Your task to perform on an android device: Search for razer blackwidow on target.com, select the first entry, and add it to the cart. Image 0: 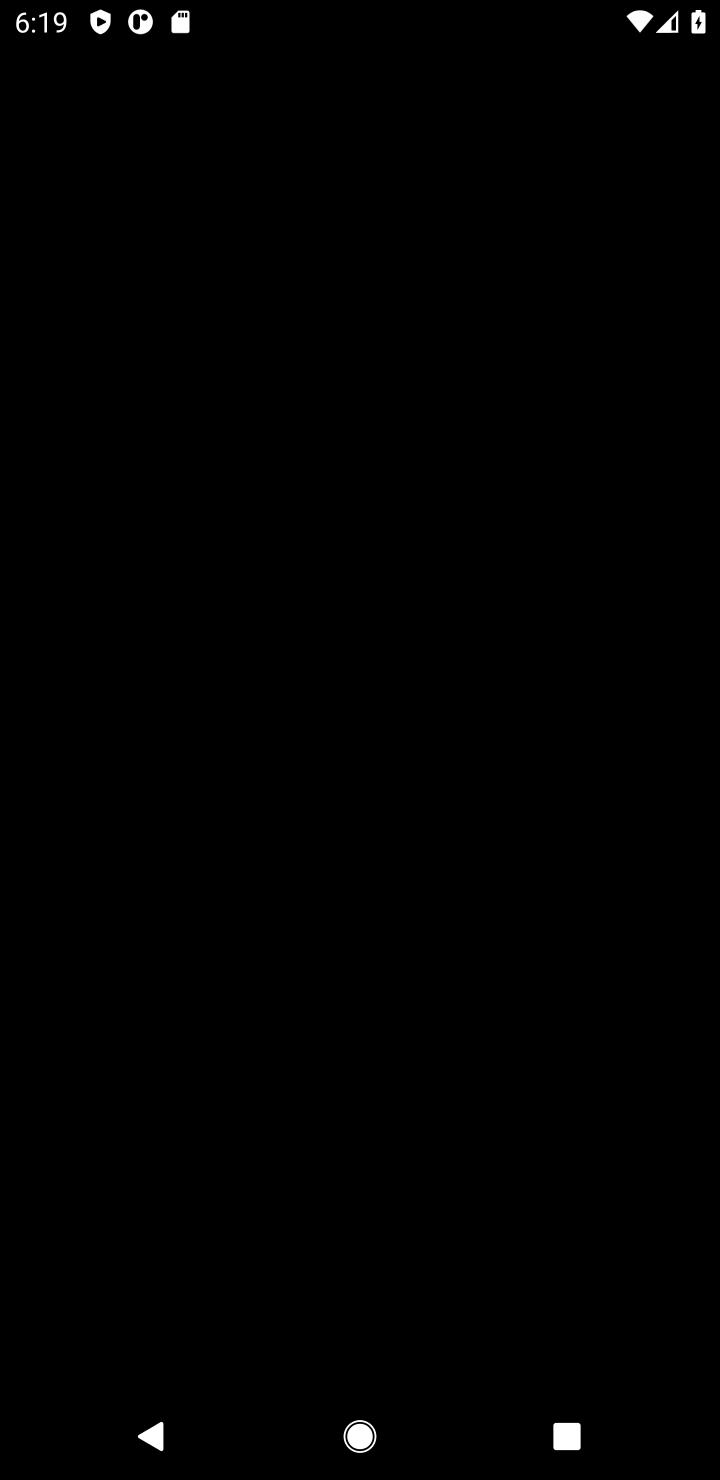
Step 0: press home button
Your task to perform on an android device: Search for razer blackwidow on target.com, select the first entry, and add it to the cart. Image 1: 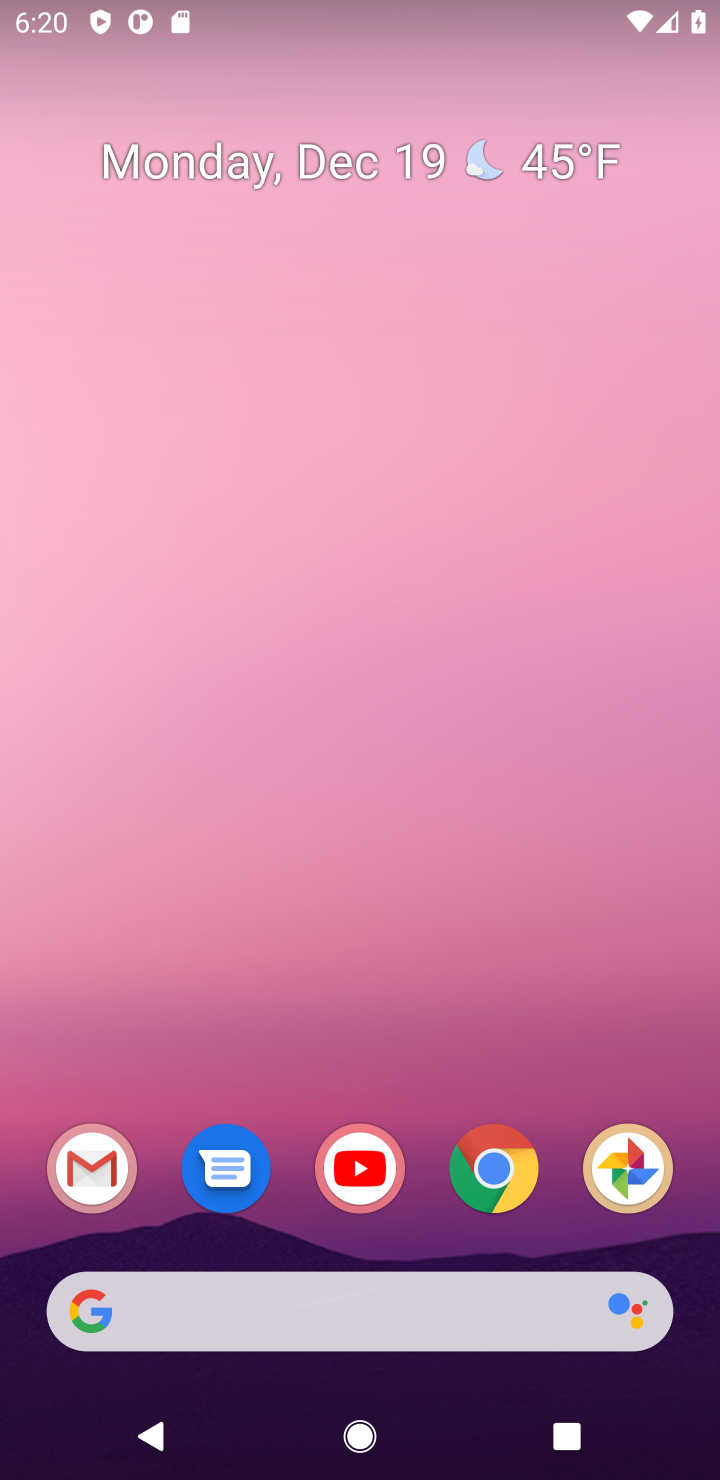
Step 1: click (494, 1180)
Your task to perform on an android device: Search for razer blackwidow on target.com, select the first entry, and add it to the cart. Image 2: 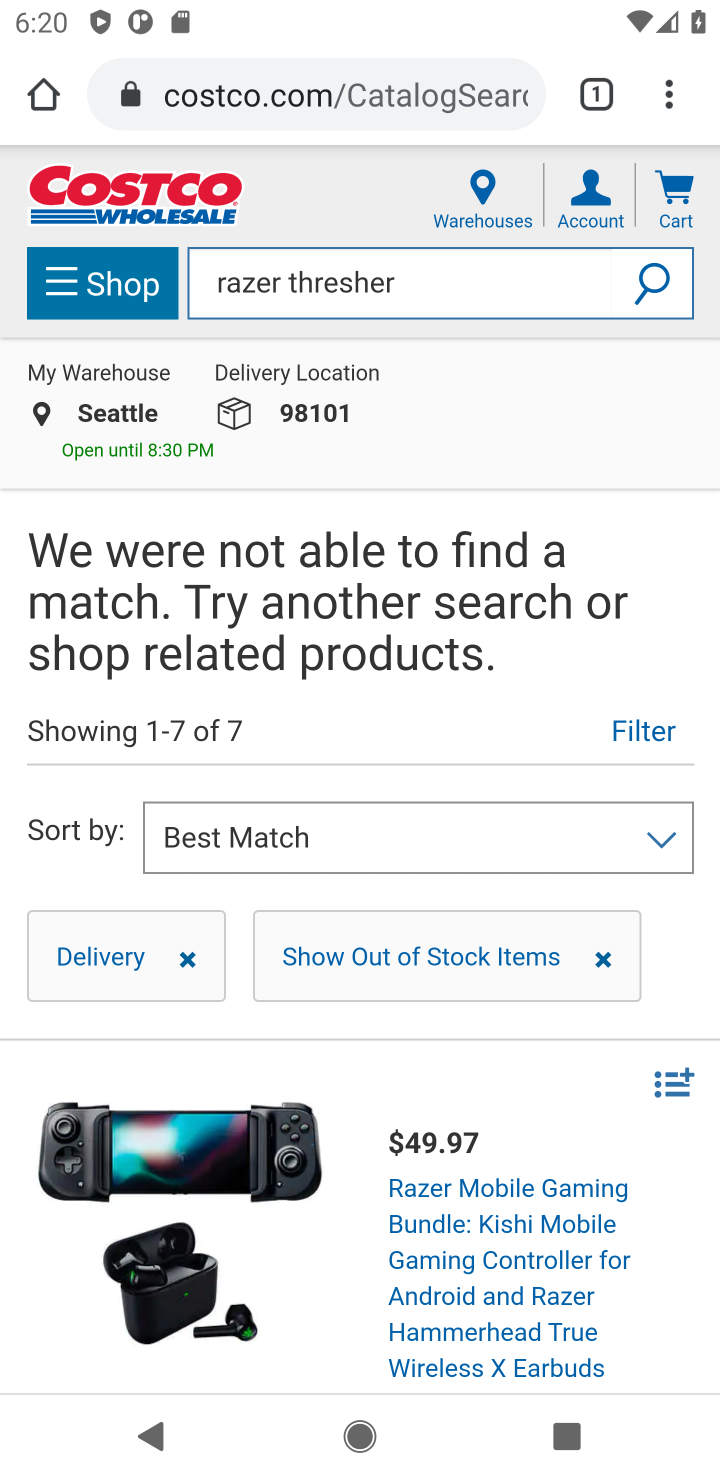
Step 2: click (290, 101)
Your task to perform on an android device: Search for razer blackwidow on target.com, select the first entry, and add it to the cart. Image 3: 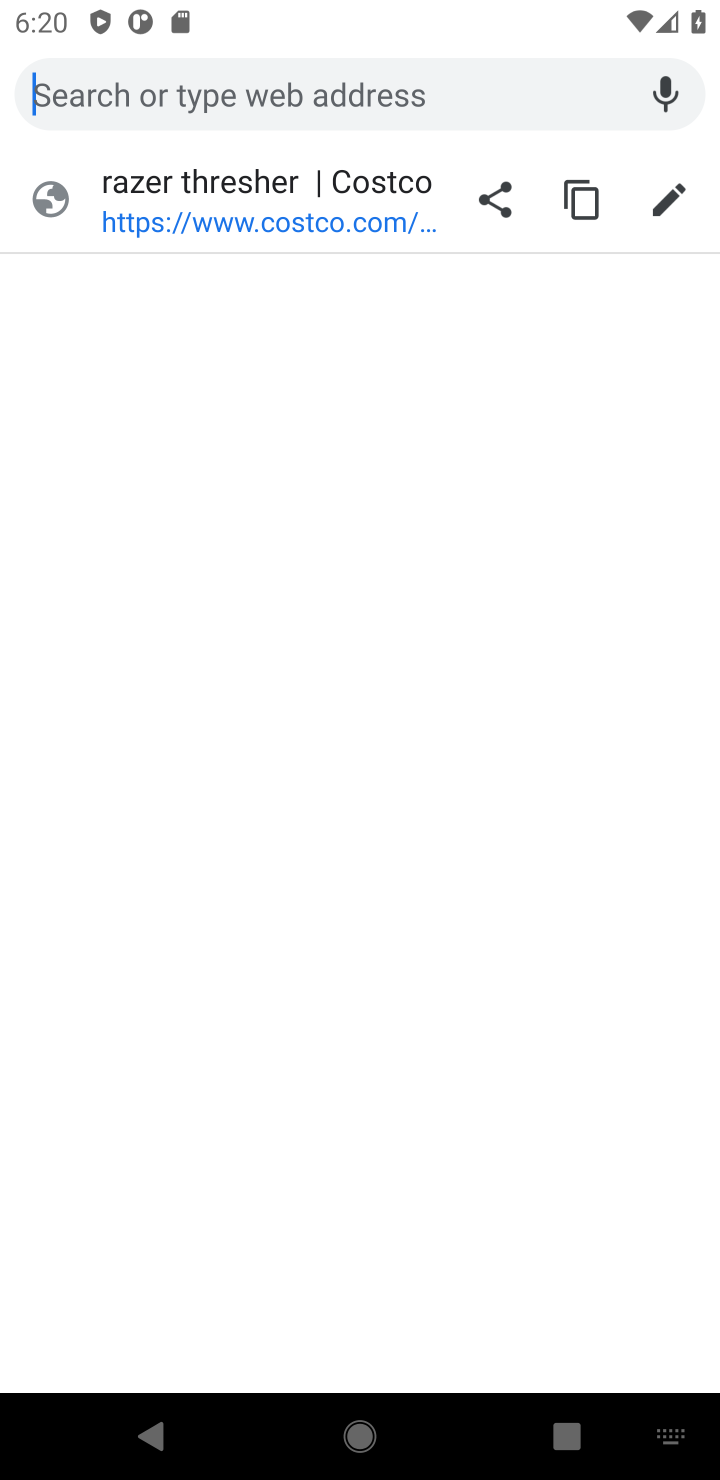
Step 3: type "target.com"
Your task to perform on an android device: Search for razer blackwidow on target.com, select the first entry, and add it to the cart. Image 4: 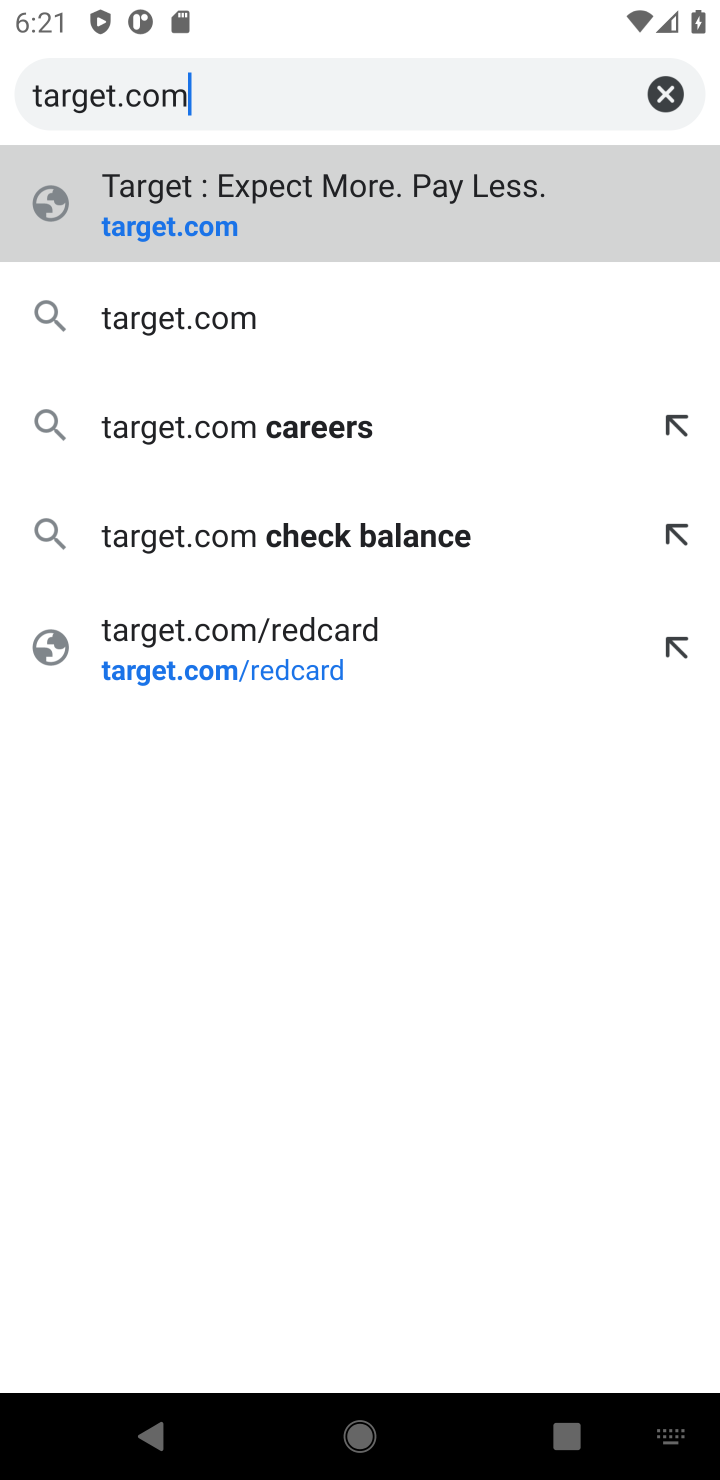
Step 4: click (149, 212)
Your task to perform on an android device: Search for razer blackwidow on target.com, select the first entry, and add it to the cart. Image 5: 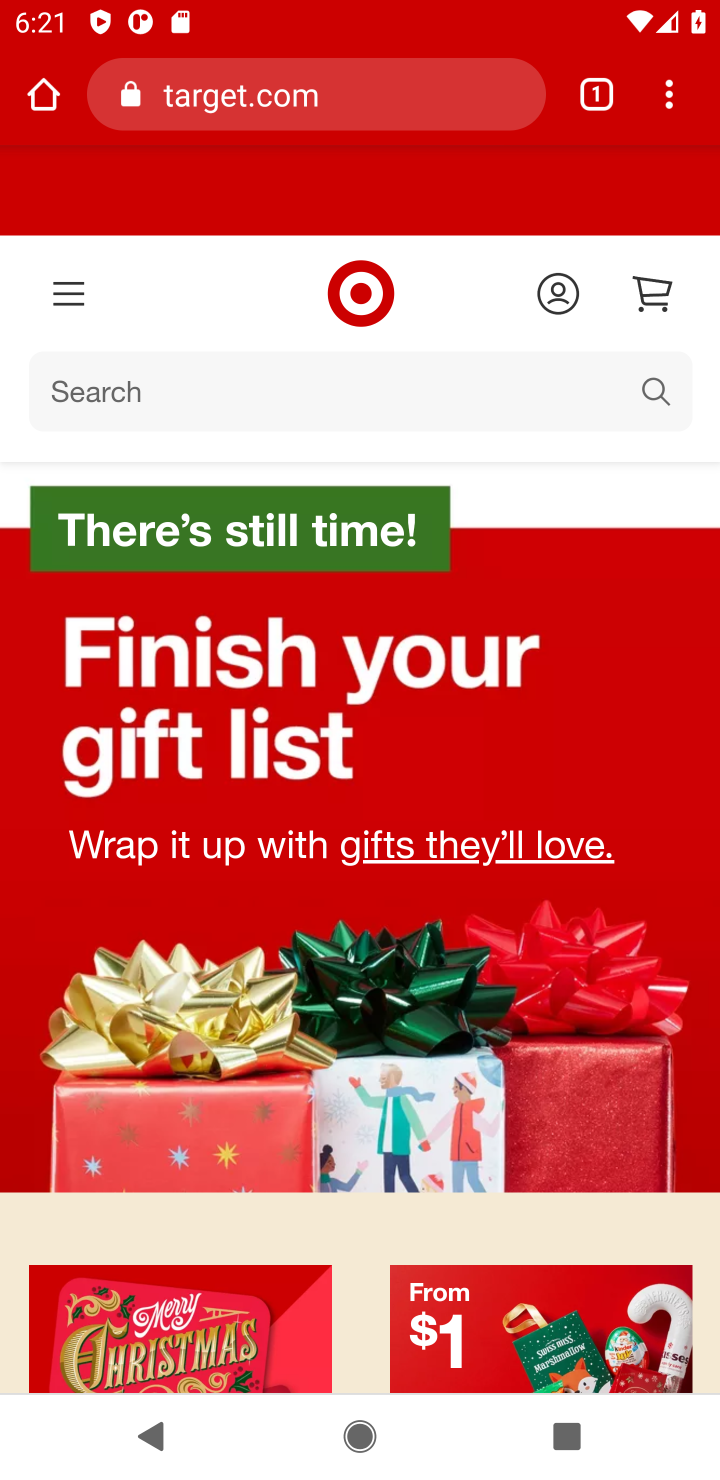
Step 5: click (108, 401)
Your task to perform on an android device: Search for razer blackwidow on target.com, select the first entry, and add it to the cart. Image 6: 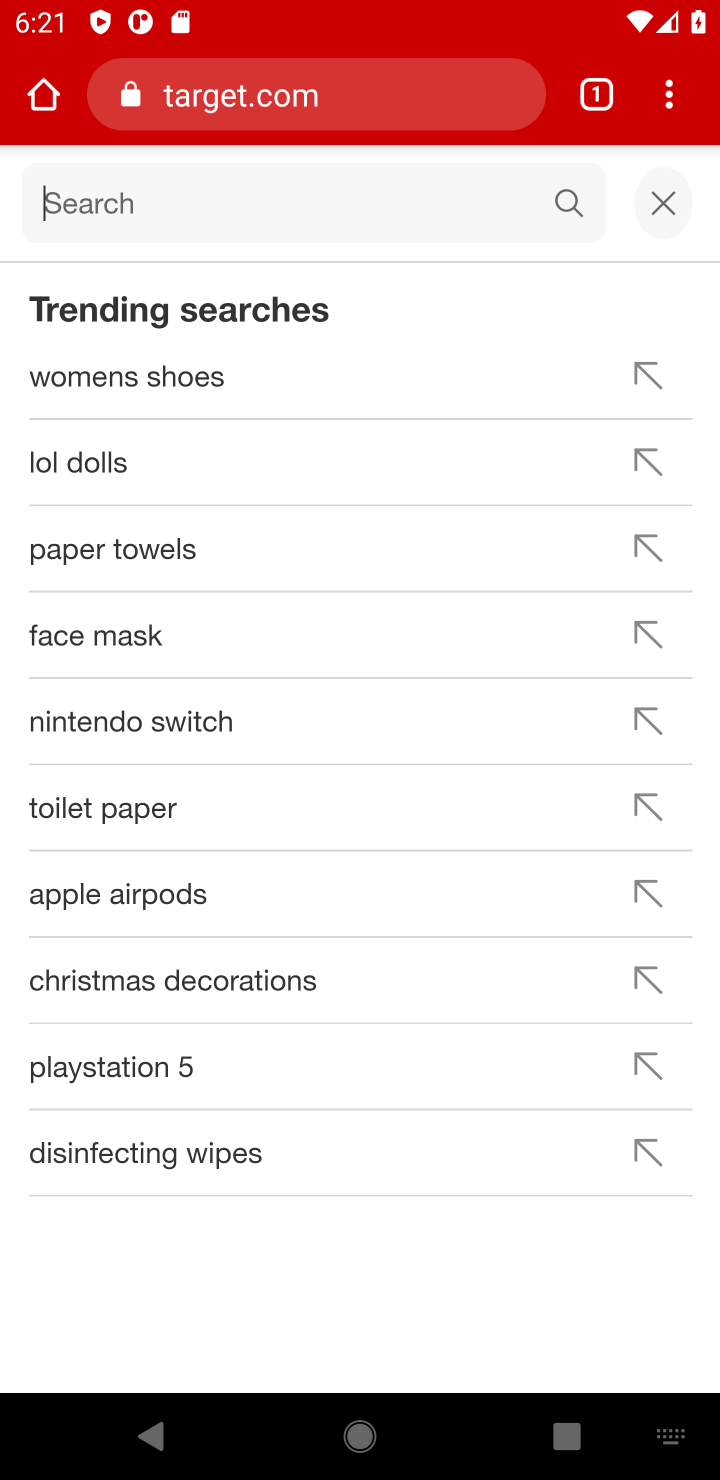
Step 6: type "razer blackwidow "
Your task to perform on an android device: Search for razer blackwidow on target.com, select the first entry, and add it to the cart. Image 7: 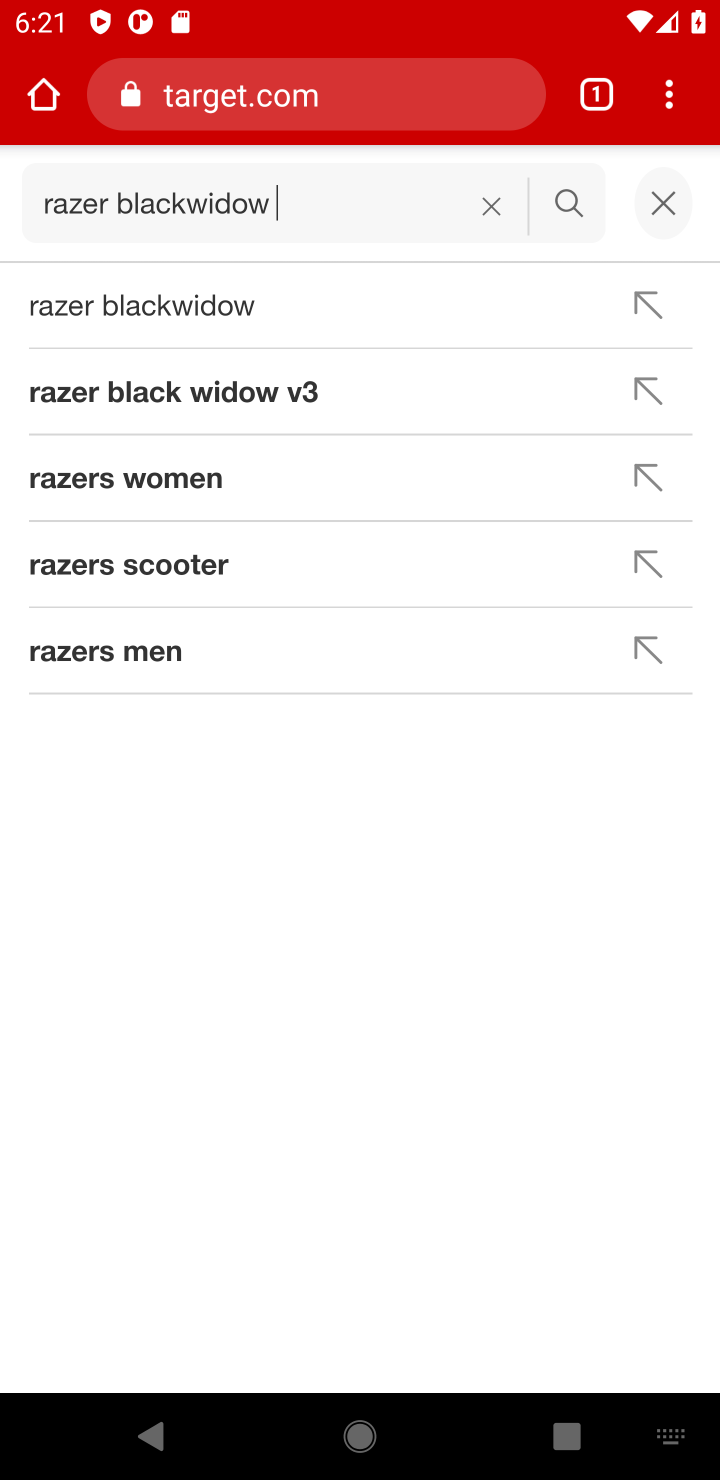
Step 7: click (181, 315)
Your task to perform on an android device: Search for razer blackwidow on target.com, select the first entry, and add it to the cart. Image 8: 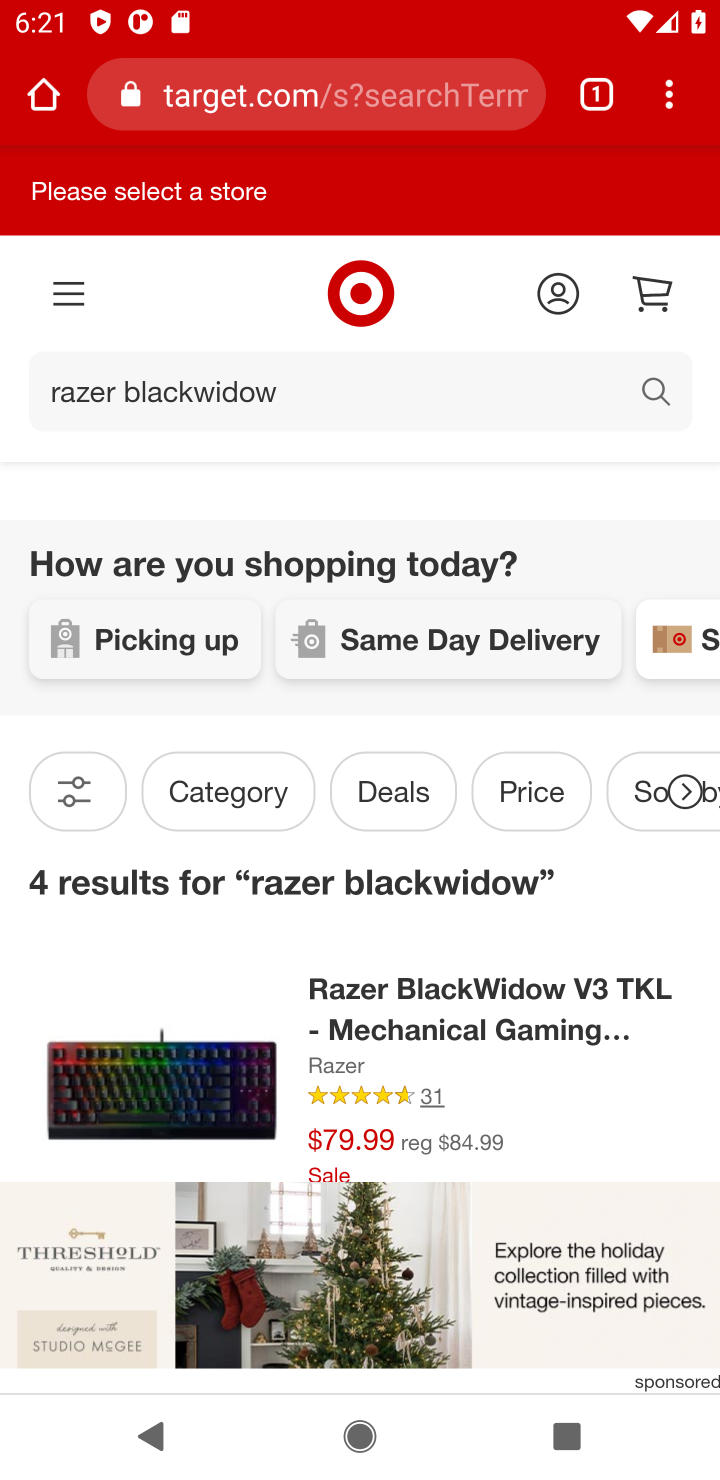
Step 8: drag from (221, 915) to (221, 524)
Your task to perform on an android device: Search for razer blackwidow on target.com, select the first entry, and add it to the cart. Image 9: 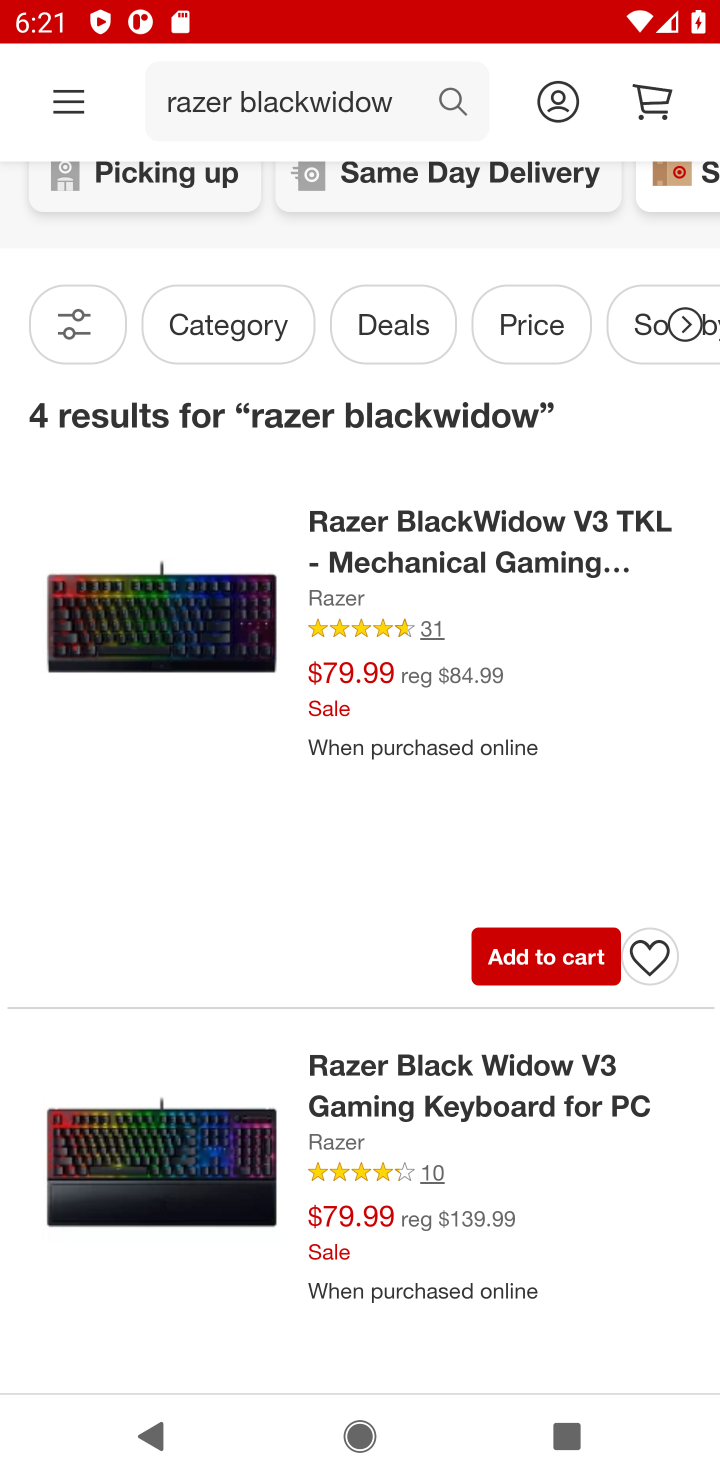
Step 9: click (546, 955)
Your task to perform on an android device: Search for razer blackwidow on target.com, select the first entry, and add it to the cart. Image 10: 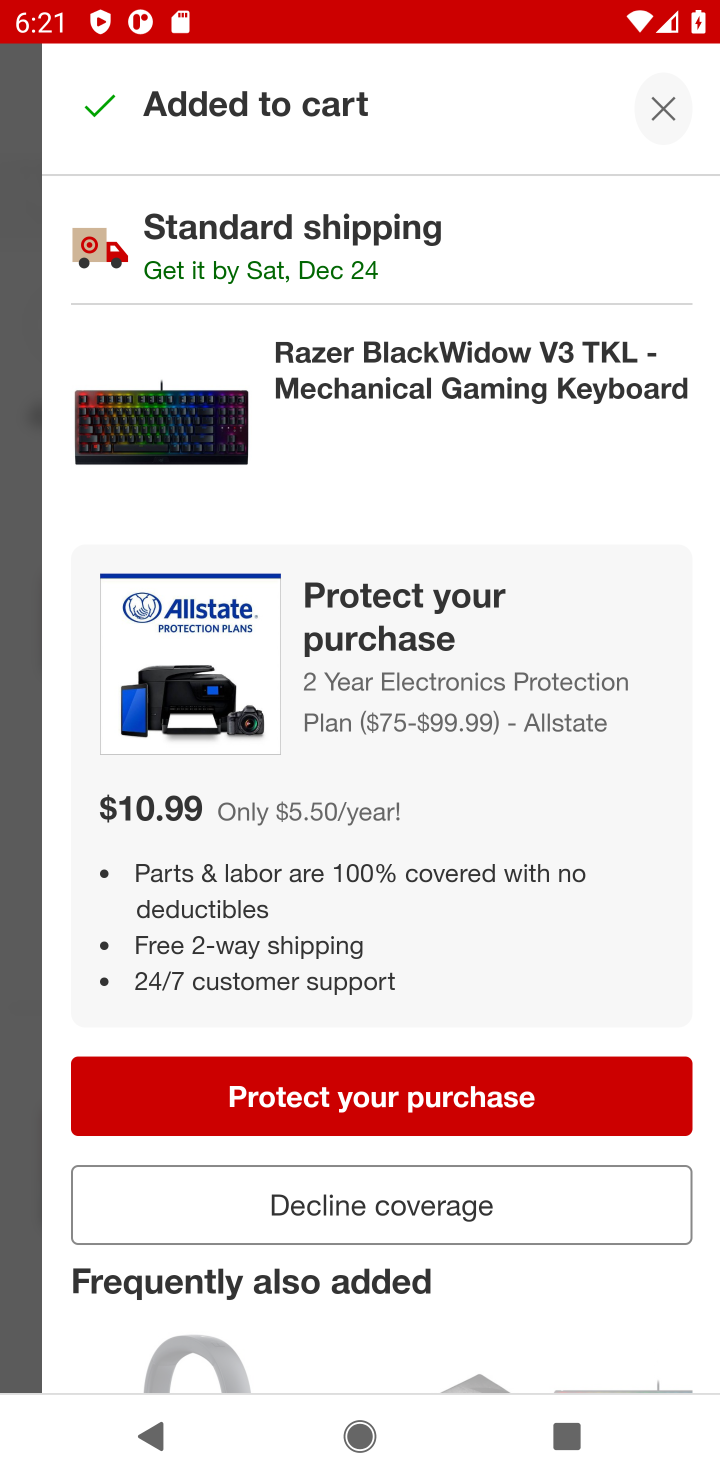
Step 10: task complete